Your task to perform on an android device: How big is a lion? Image 0: 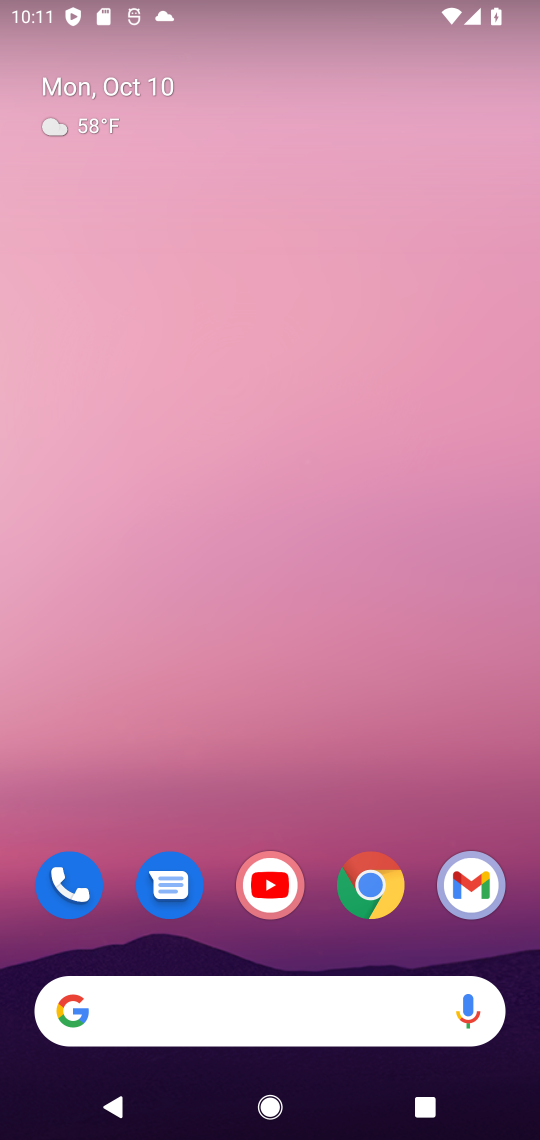
Step 0: click (364, 902)
Your task to perform on an android device: How big is a lion? Image 1: 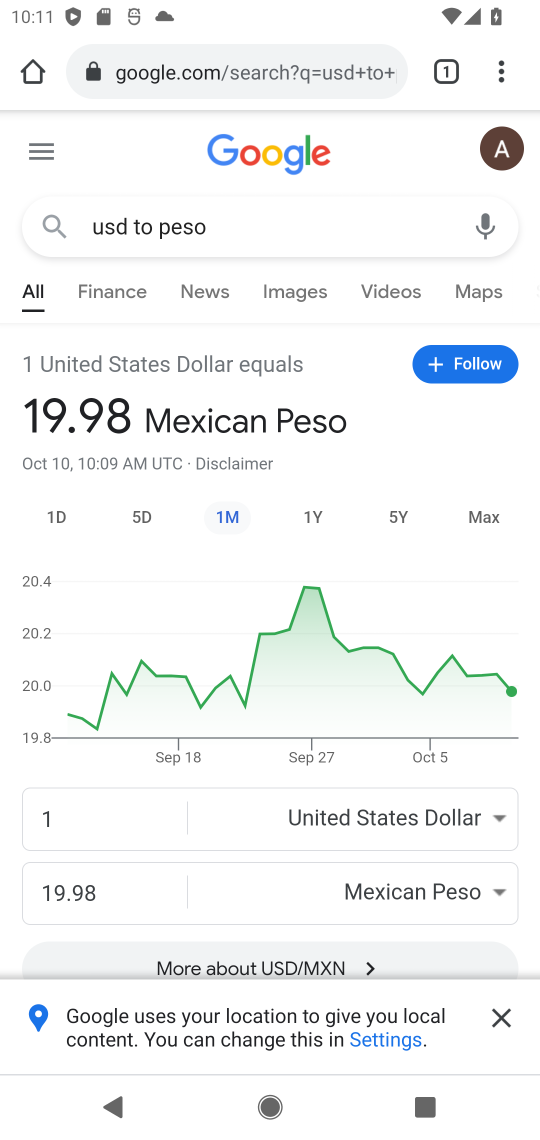
Step 1: click (266, 78)
Your task to perform on an android device: How big is a lion? Image 2: 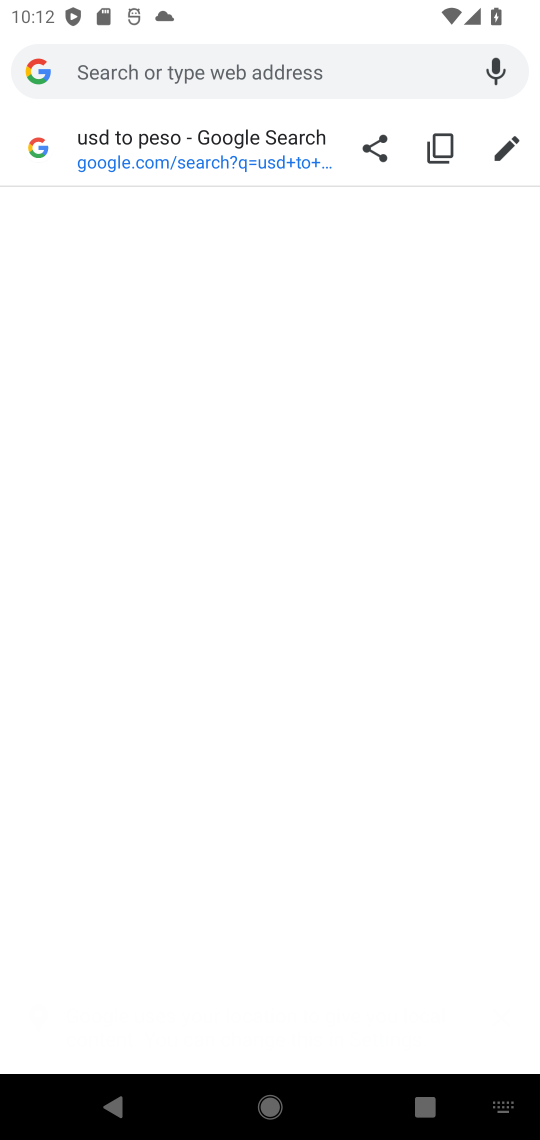
Step 2: type "how big is a lion"
Your task to perform on an android device: How big is a lion? Image 3: 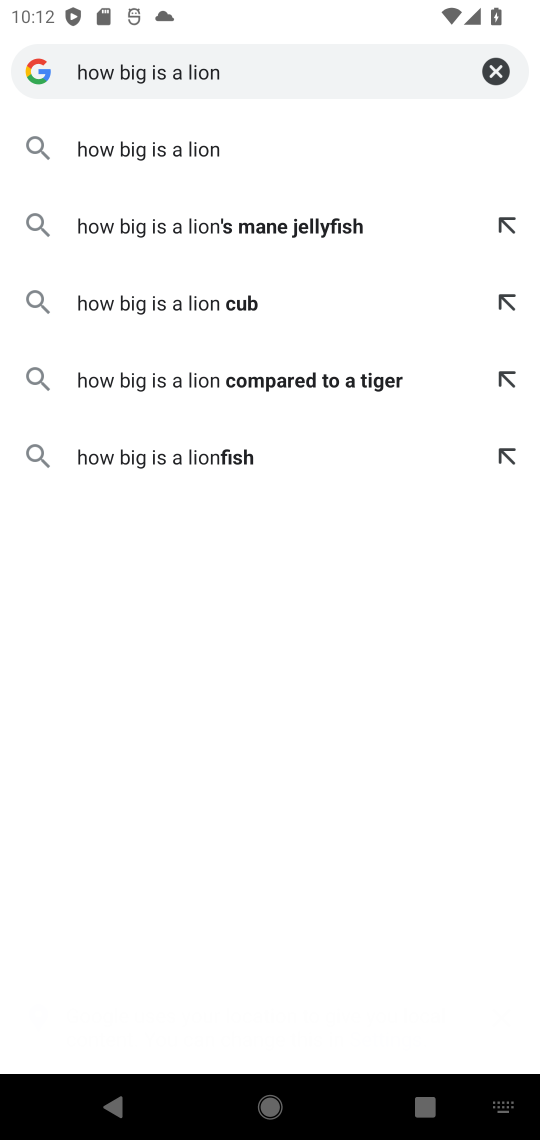
Step 3: click (351, 139)
Your task to perform on an android device: How big is a lion? Image 4: 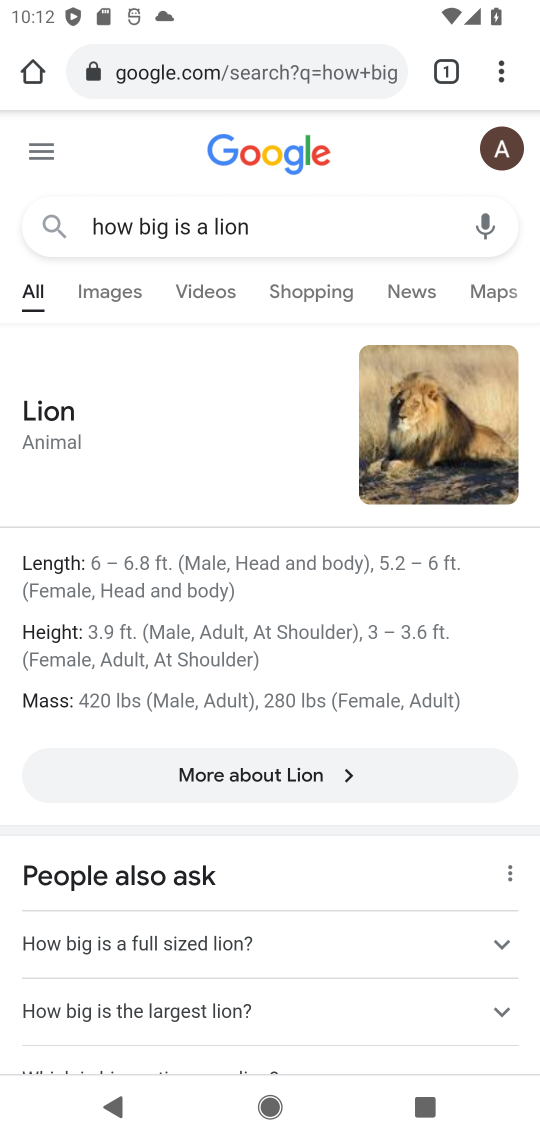
Step 4: task complete